Your task to perform on an android device: Open Chrome and go to the settings page Image 0: 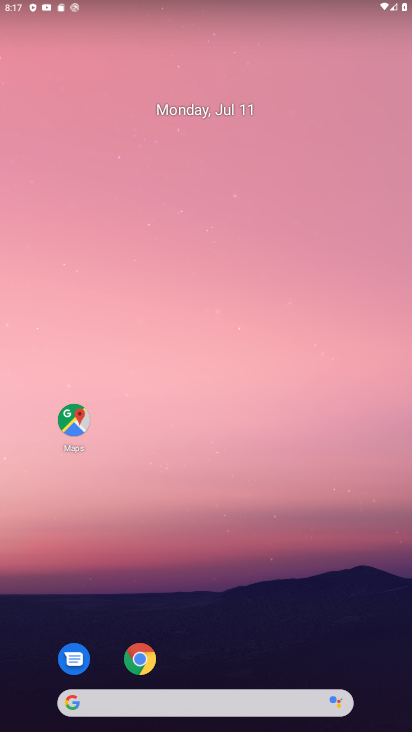
Step 0: click (124, 663)
Your task to perform on an android device: Open Chrome and go to the settings page Image 1: 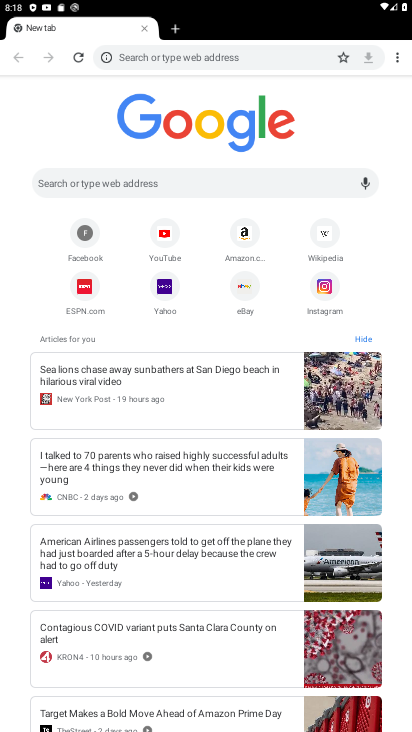
Step 1: click (396, 62)
Your task to perform on an android device: Open Chrome and go to the settings page Image 2: 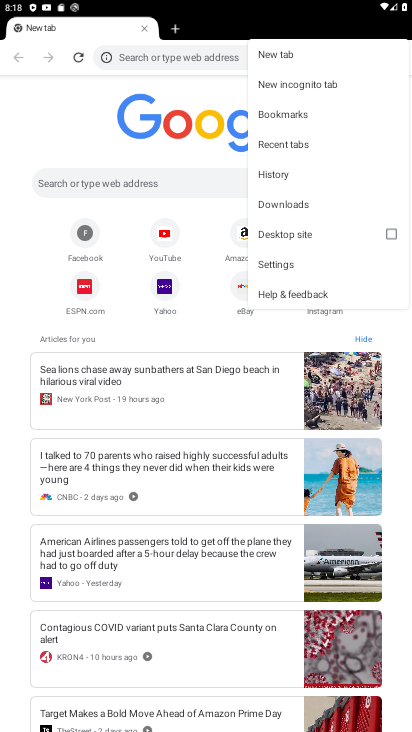
Step 2: click (285, 266)
Your task to perform on an android device: Open Chrome and go to the settings page Image 3: 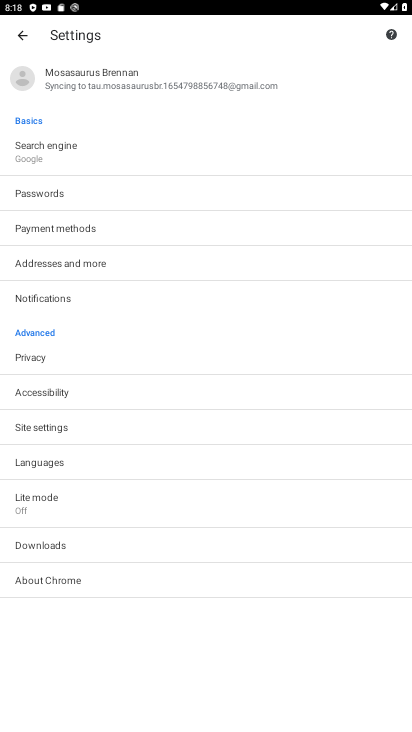
Step 3: task complete